Your task to perform on an android device: find photos in the google photos app Image 0: 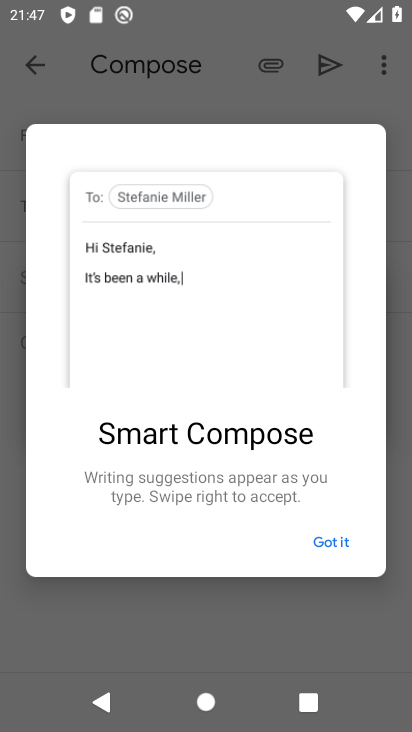
Step 0: press home button
Your task to perform on an android device: find photos in the google photos app Image 1: 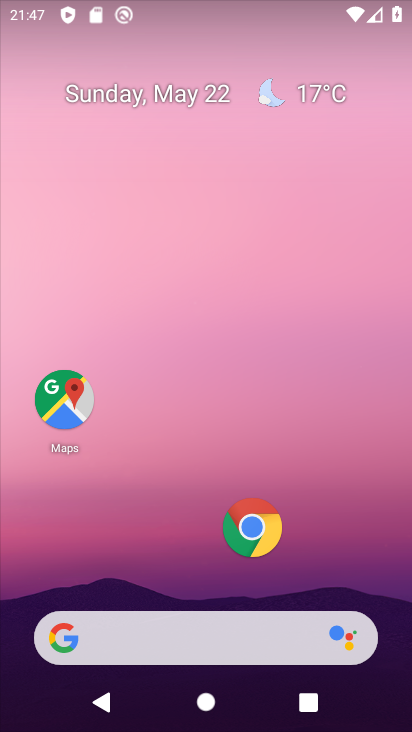
Step 1: drag from (168, 544) to (86, 65)
Your task to perform on an android device: find photos in the google photos app Image 2: 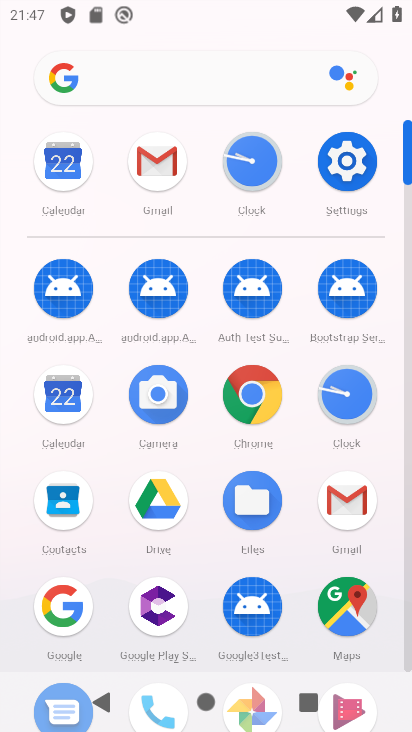
Step 2: drag from (209, 478) to (173, 145)
Your task to perform on an android device: find photos in the google photos app Image 3: 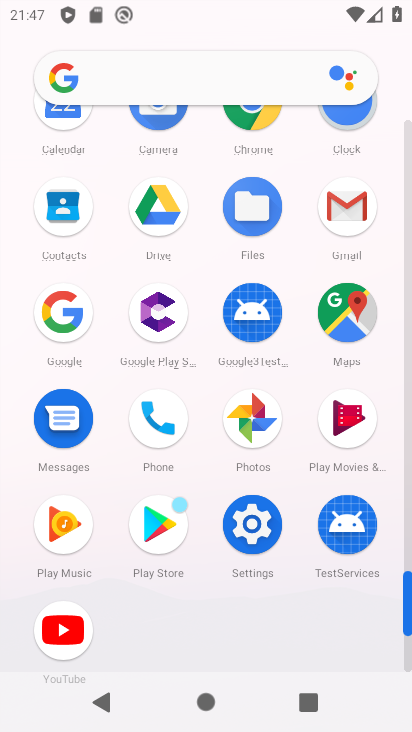
Step 3: click (251, 417)
Your task to perform on an android device: find photos in the google photos app Image 4: 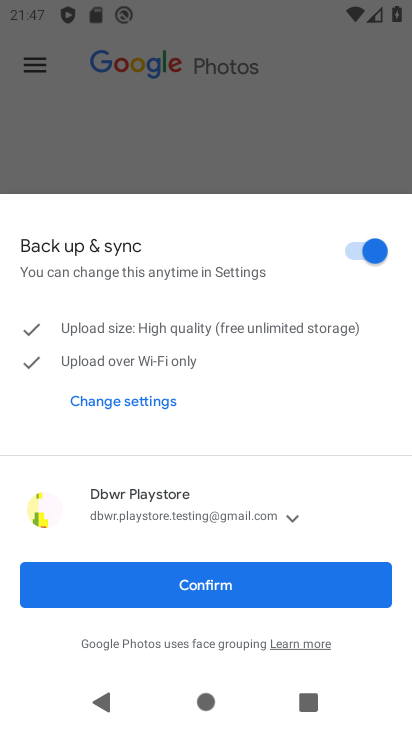
Step 4: click (213, 587)
Your task to perform on an android device: find photos in the google photos app Image 5: 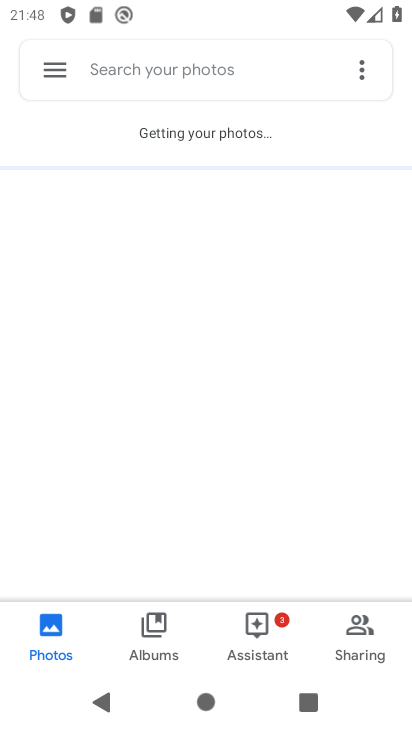
Step 5: click (114, 72)
Your task to perform on an android device: find photos in the google photos app Image 6: 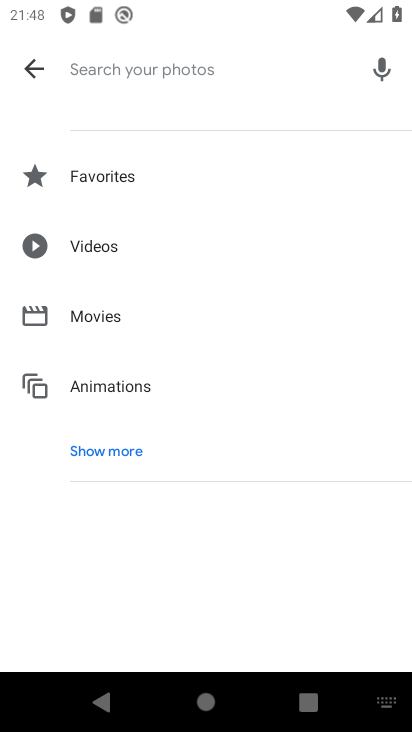
Step 6: task complete